Your task to perform on an android device: open sync settings in chrome Image 0: 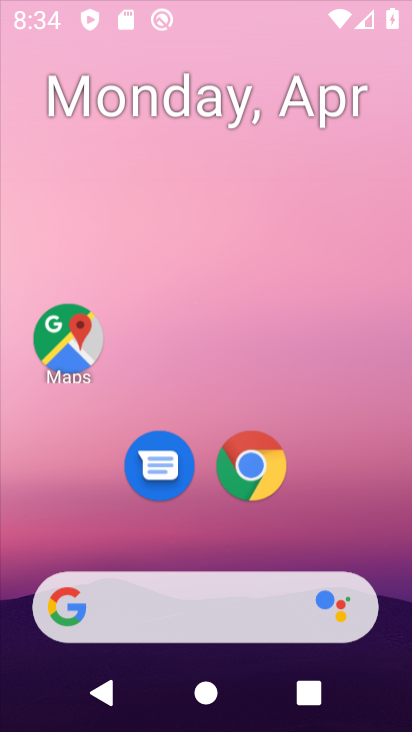
Step 0: click (243, 42)
Your task to perform on an android device: open sync settings in chrome Image 1: 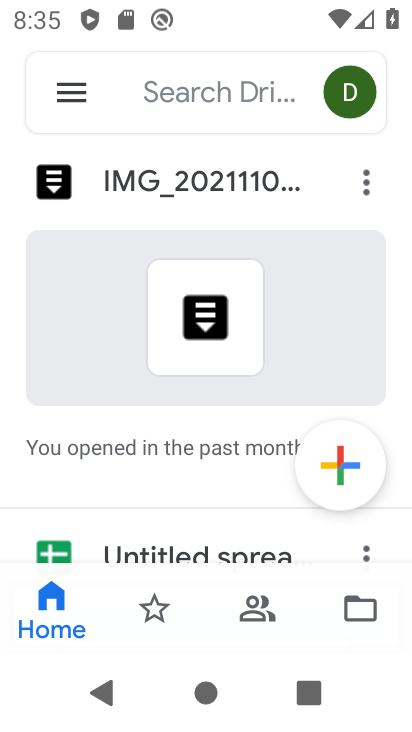
Step 1: press home button
Your task to perform on an android device: open sync settings in chrome Image 2: 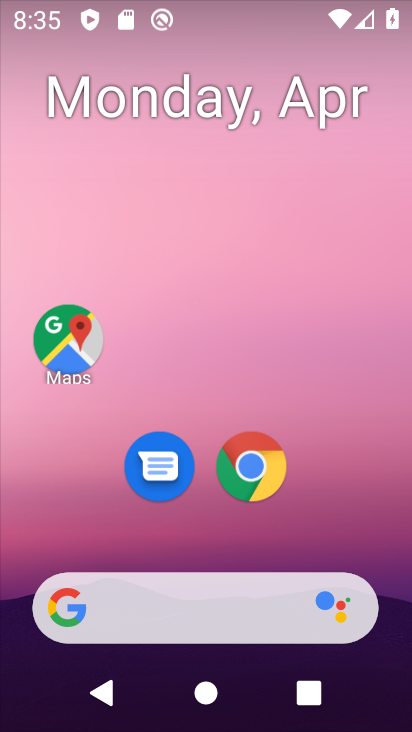
Step 2: click (256, 462)
Your task to perform on an android device: open sync settings in chrome Image 3: 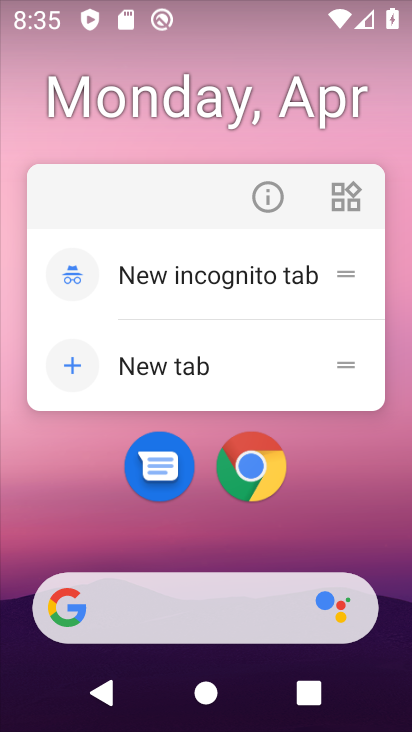
Step 3: click (256, 462)
Your task to perform on an android device: open sync settings in chrome Image 4: 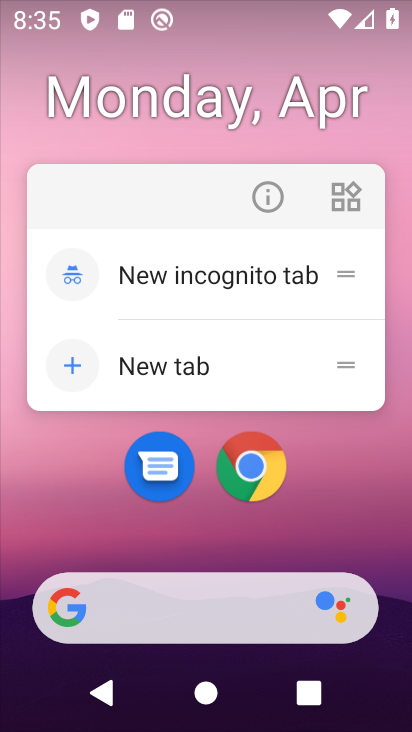
Step 4: click (256, 462)
Your task to perform on an android device: open sync settings in chrome Image 5: 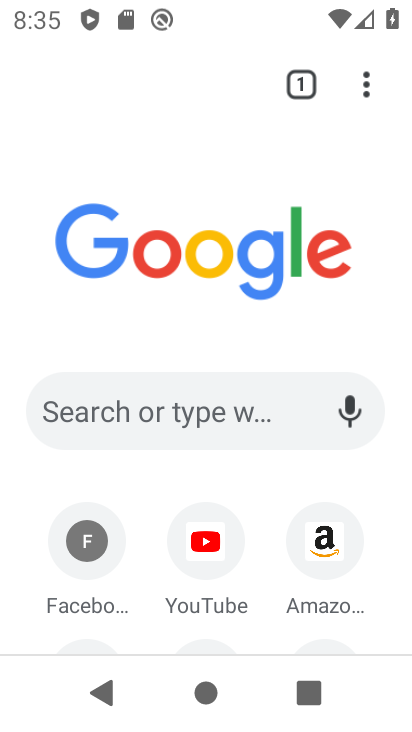
Step 5: click (382, 90)
Your task to perform on an android device: open sync settings in chrome Image 6: 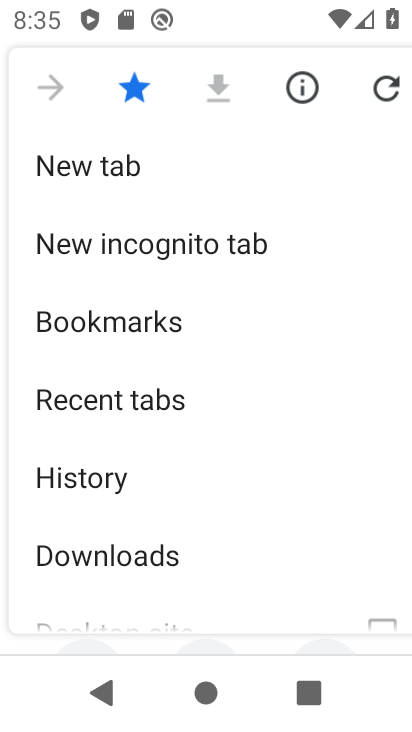
Step 6: drag from (206, 380) to (217, 219)
Your task to perform on an android device: open sync settings in chrome Image 7: 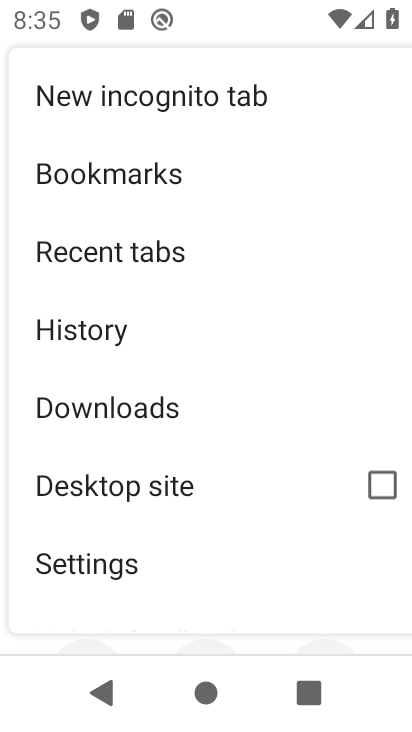
Step 7: drag from (166, 445) to (213, 338)
Your task to perform on an android device: open sync settings in chrome Image 8: 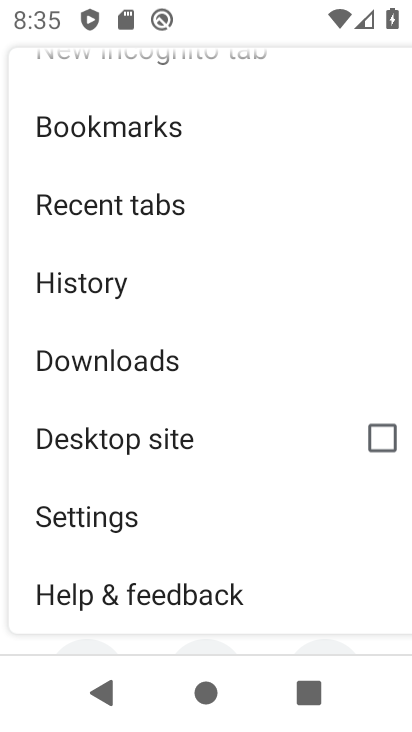
Step 8: click (112, 523)
Your task to perform on an android device: open sync settings in chrome Image 9: 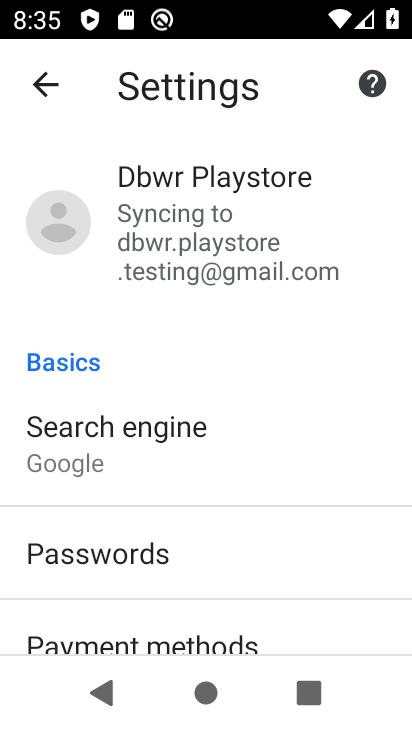
Step 9: drag from (195, 532) to (226, 427)
Your task to perform on an android device: open sync settings in chrome Image 10: 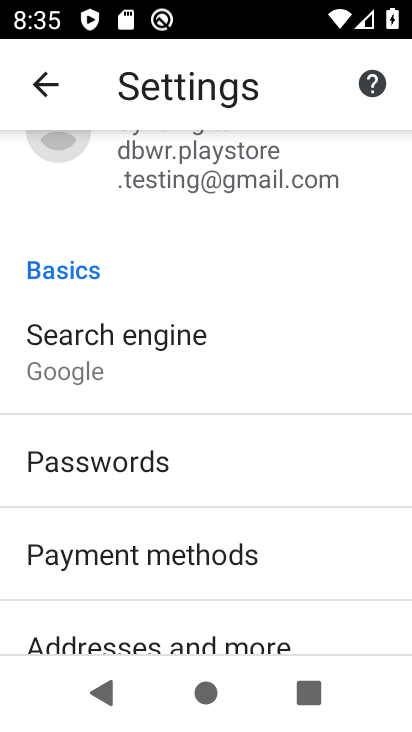
Step 10: drag from (205, 509) to (230, 432)
Your task to perform on an android device: open sync settings in chrome Image 11: 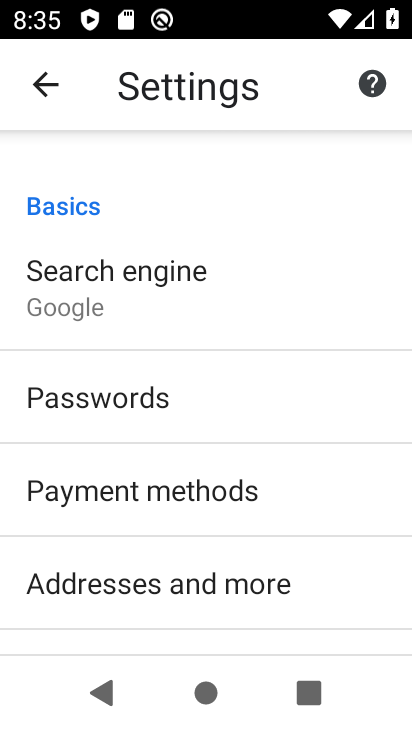
Step 11: drag from (203, 528) to (234, 402)
Your task to perform on an android device: open sync settings in chrome Image 12: 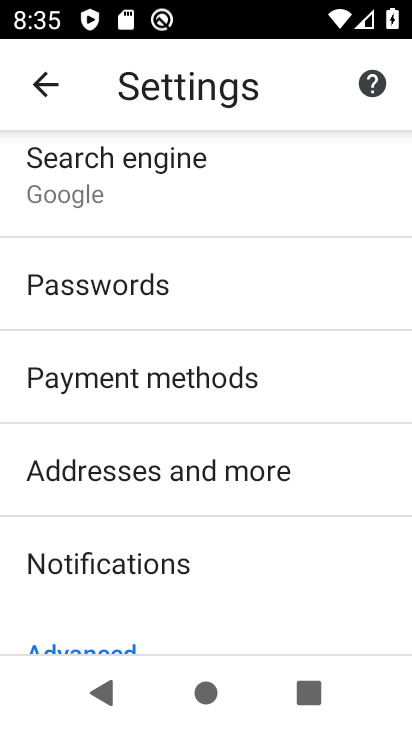
Step 12: drag from (200, 526) to (238, 431)
Your task to perform on an android device: open sync settings in chrome Image 13: 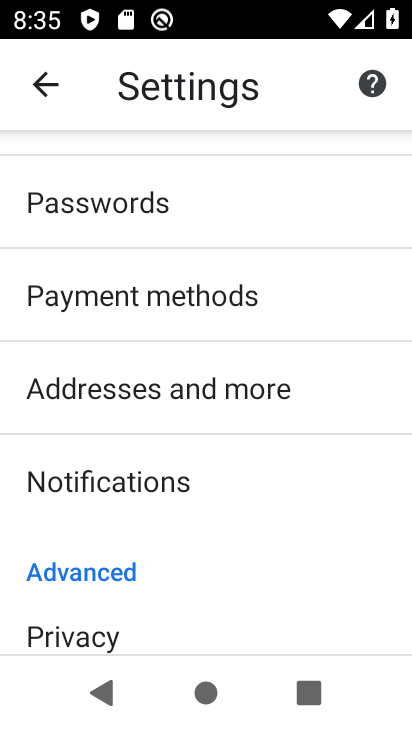
Step 13: drag from (206, 547) to (242, 419)
Your task to perform on an android device: open sync settings in chrome Image 14: 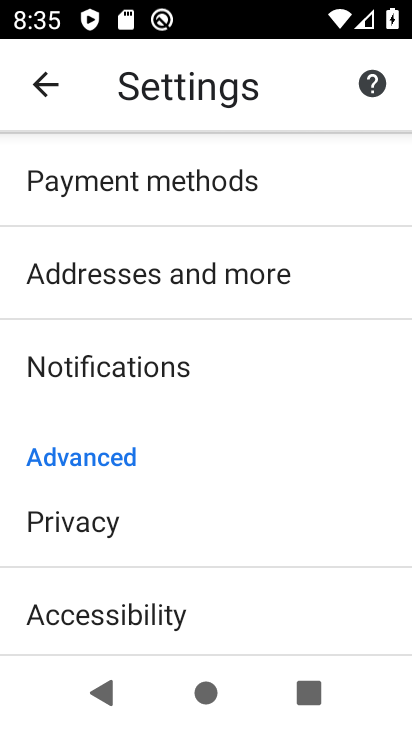
Step 14: drag from (209, 537) to (255, 427)
Your task to perform on an android device: open sync settings in chrome Image 15: 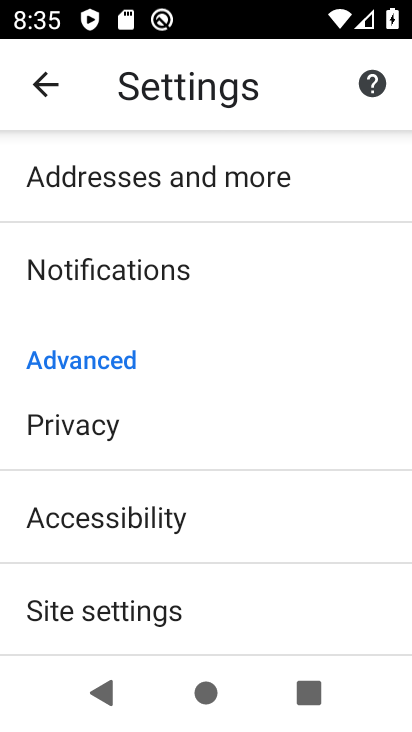
Step 15: drag from (240, 542) to (272, 445)
Your task to perform on an android device: open sync settings in chrome Image 16: 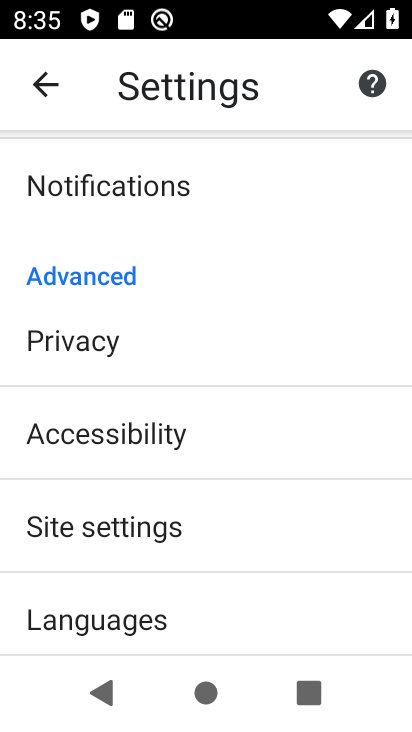
Step 16: click (132, 526)
Your task to perform on an android device: open sync settings in chrome Image 17: 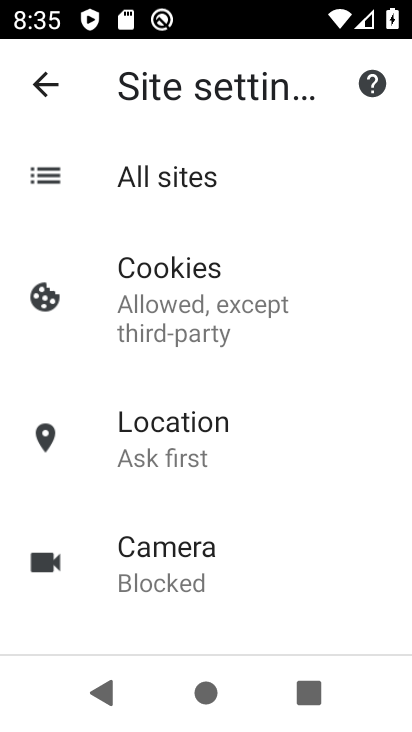
Step 17: drag from (208, 535) to (263, 451)
Your task to perform on an android device: open sync settings in chrome Image 18: 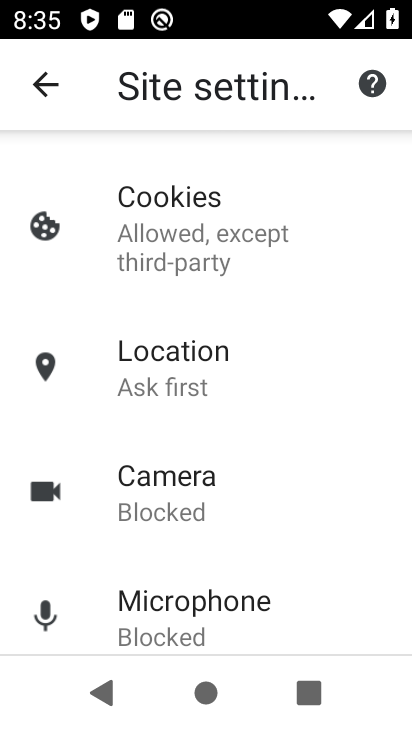
Step 18: drag from (239, 551) to (264, 468)
Your task to perform on an android device: open sync settings in chrome Image 19: 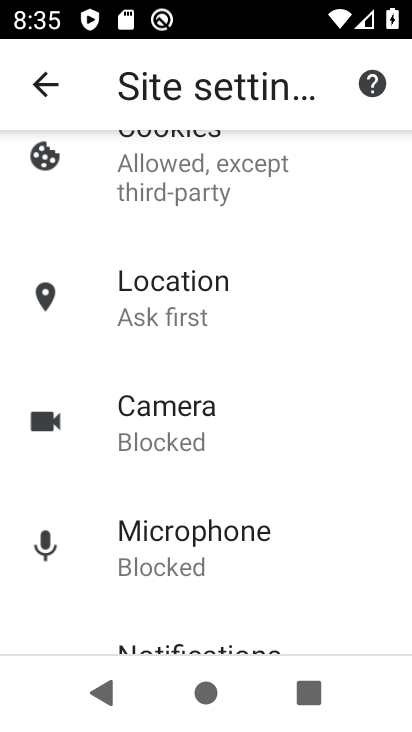
Step 19: drag from (251, 563) to (286, 468)
Your task to perform on an android device: open sync settings in chrome Image 20: 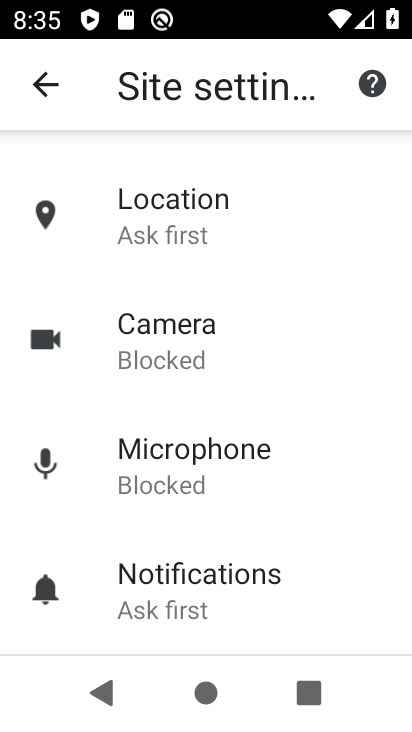
Step 20: drag from (267, 546) to (279, 439)
Your task to perform on an android device: open sync settings in chrome Image 21: 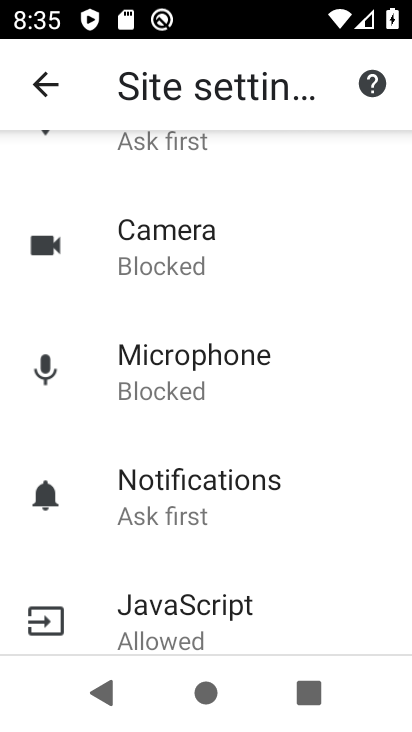
Step 21: drag from (249, 541) to (305, 426)
Your task to perform on an android device: open sync settings in chrome Image 22: 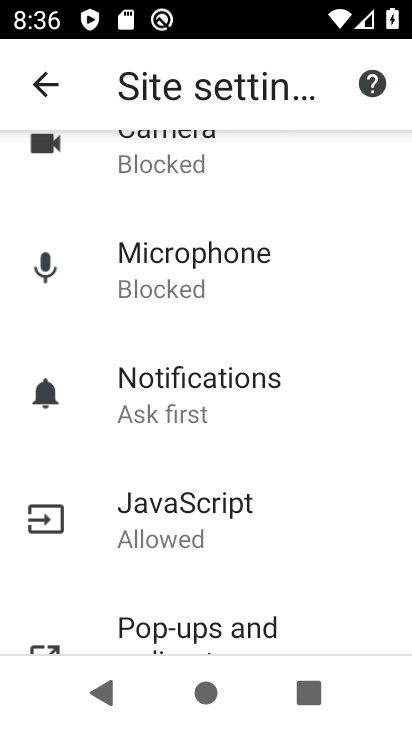
Step 22: drag from (270, 538) to (306, 408)
Your task to perform on an android device: open sync settings in chrome Image 23: 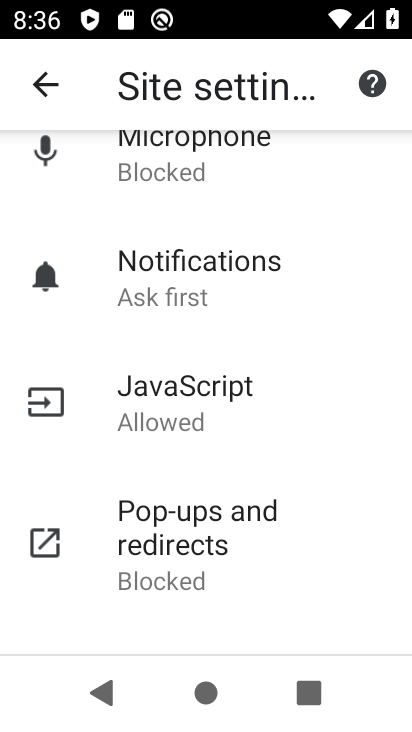
Step 23: drag from (292, 539) to (321, 407)
Your task to perform on an android device: open sync settings in chrome Image 24: 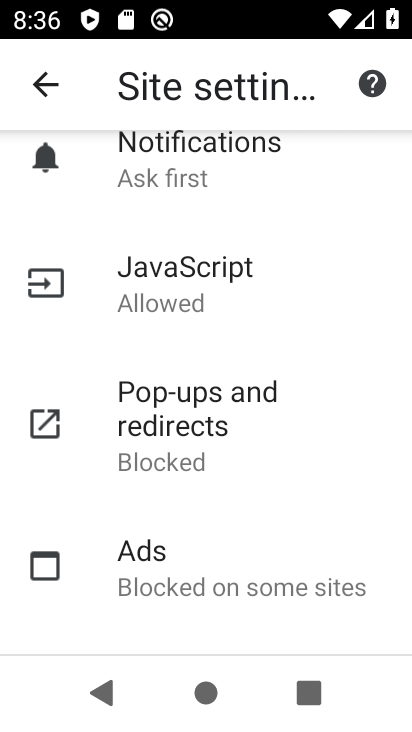
Step 24: drag from (279, 518) to (315, 378)
Your task to perform on an android device: open sync settings in chrome Image 25: 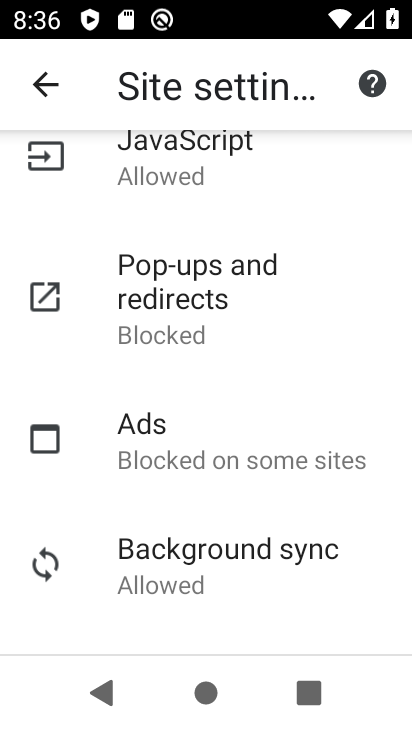
Step 25: drag from (242, 506) to (286, 406)
Your task to perform on an android device: open sync settings in chrome Image 26: 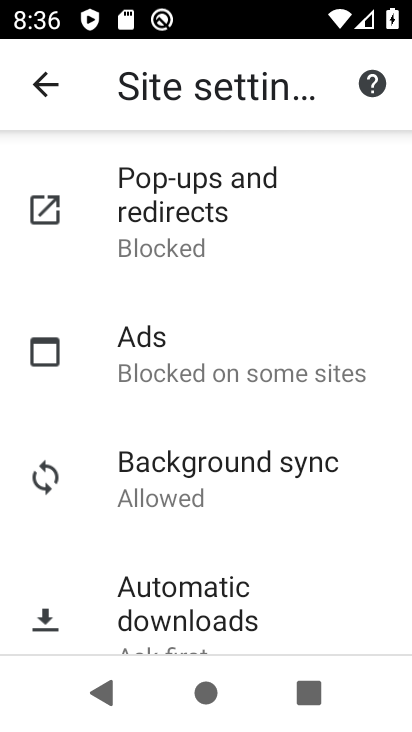
Step 26: click (265, 465)
Your task to perform on an android device: open sync settings in chrome Image 27: 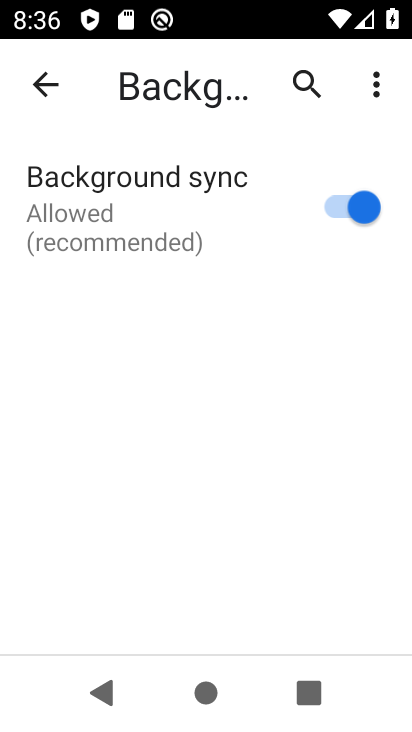
Step 27: task complete